Your task to perform on an android device: Search for Italian restaurants on Maps Image 0: 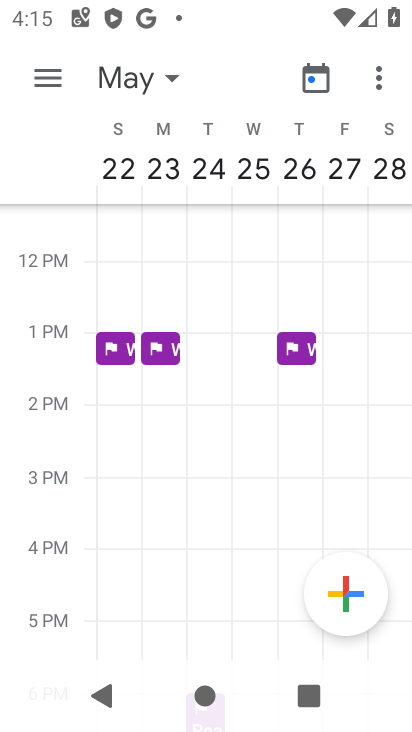
Step 0: press home button
Your task to perform on an android device: Search for Italian restaurants on Maps Image 1: 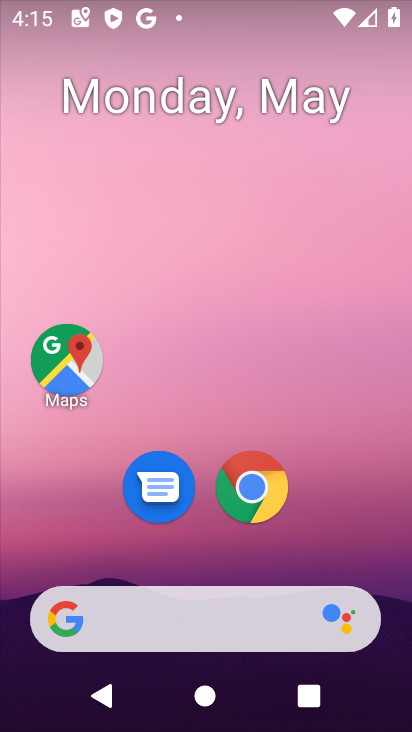
Step 1: click (66, 364)
Your task to perform on an android device: Search for Italian restaurants on Maps Image 2: 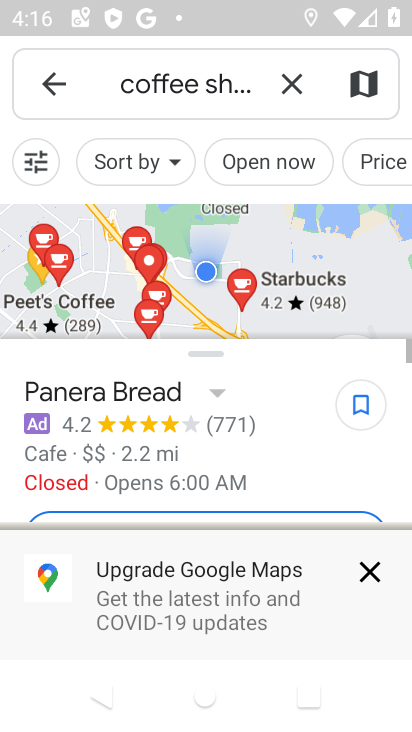
Step 2: click (286, 77)
Your task to perform on an android device: Search for Italian restaurants on Maps Image 3: 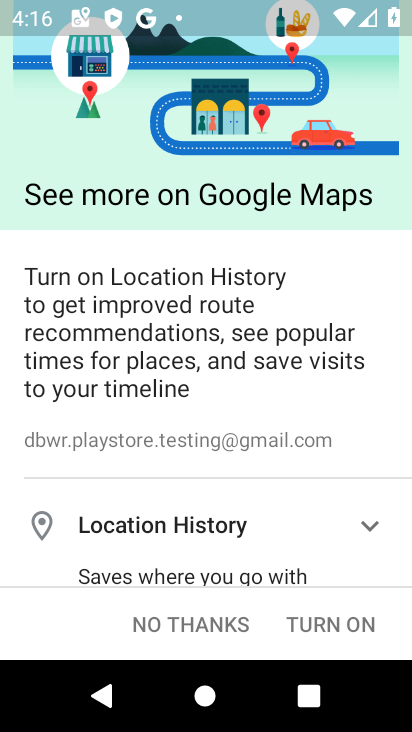
Step 3: click (164, 626)
Your task to perform on an android device: Search for Italian restaurants on Maps Image 4: 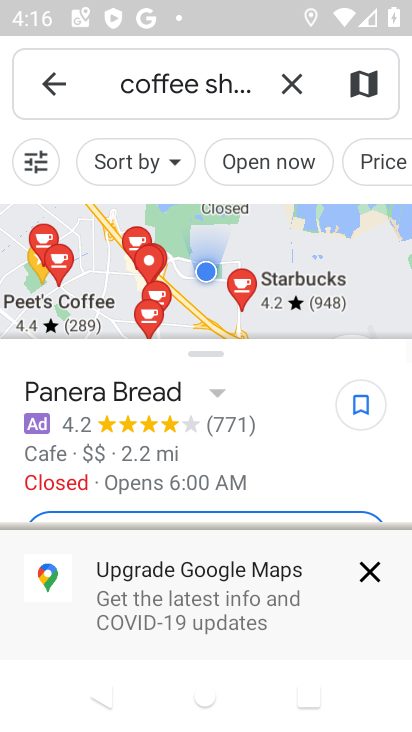
Step 4: click (295, 85)
Your task to perform on an android device: Search for Italian restaurants on Maps Image 5: 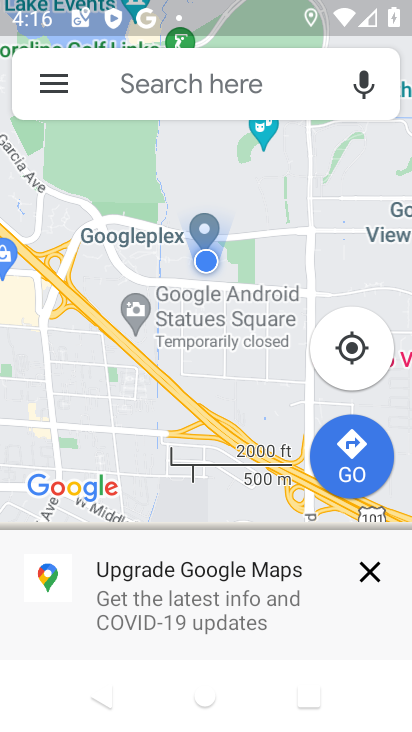
Step 5: click (153, 85)
Your task to perform on an android device: Search for Italian restaurants on Maps Image 6: 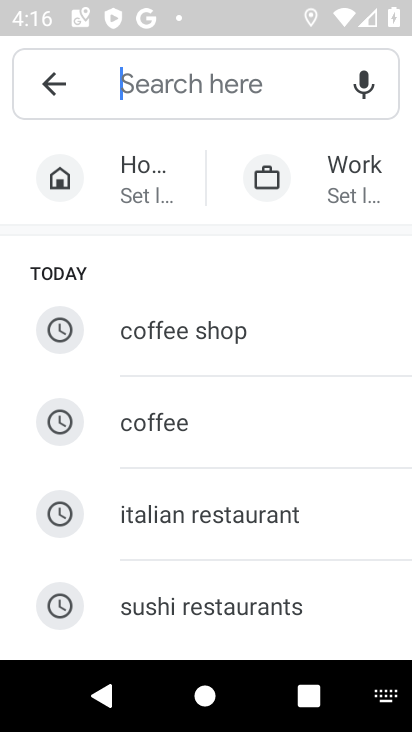
Step 6: type "italian restaurant"
Your task to perform on an android device: Search for Italian restaurants on Maps Image 7: 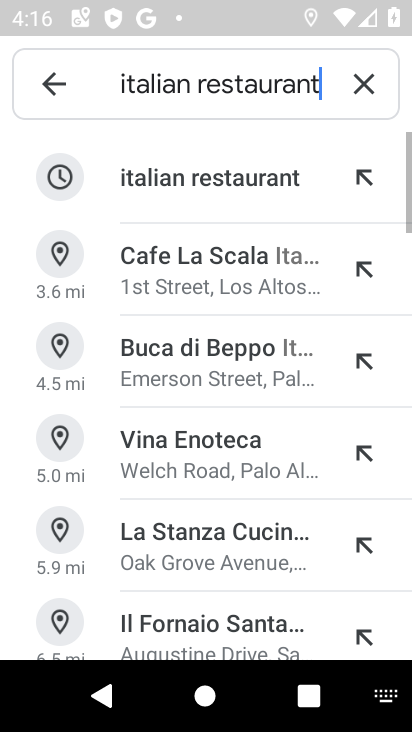
Step 7: click (181, 180)
Your task to perform on an android device: Search for Italian restaurants on Maps Image 8: 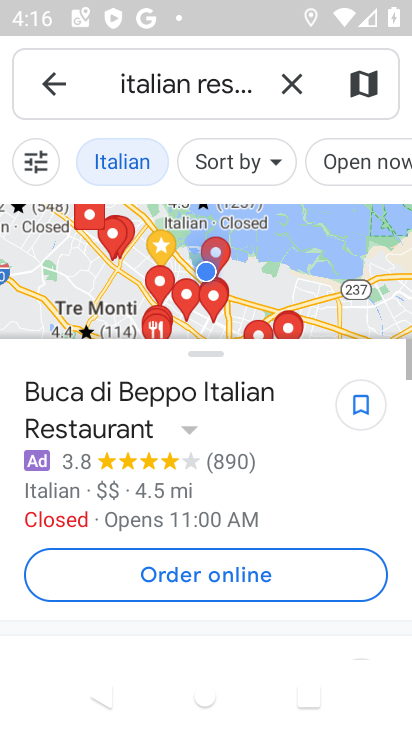
Step 8: task complete